Your task to perform on an android device: Clear all items from cart on costco.com. Search for jbl flip 4 on costco.com, select the first entry, add it to the cart, then select checkout. Image 0: 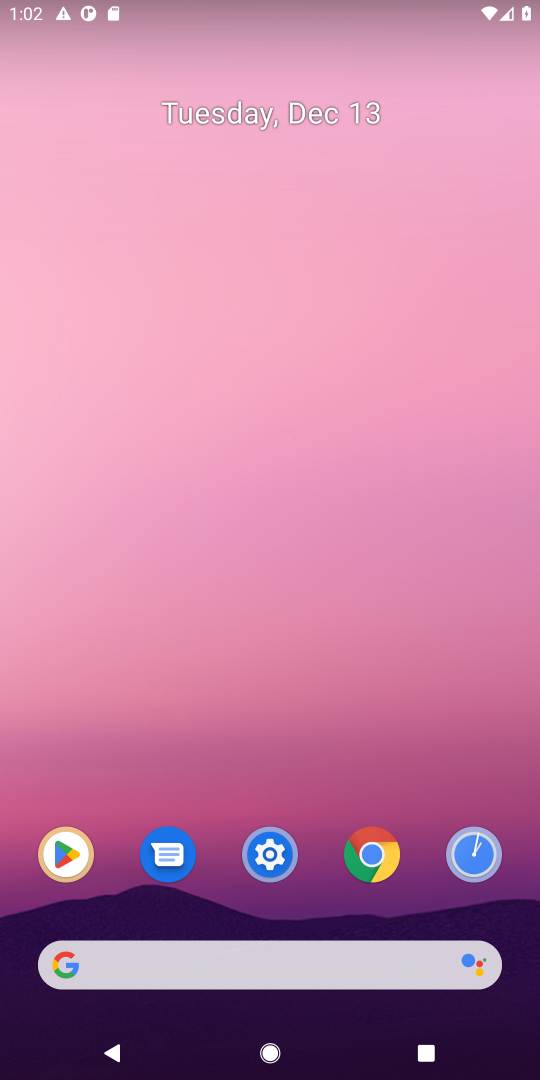
Step 0: click (339, 957)
Your task to perform on an android device: Clear all items from cart on costco.com. Search for jbl flip 4 on costco.com, select the first entry, add it to the cart, then select checkout. Image 1: 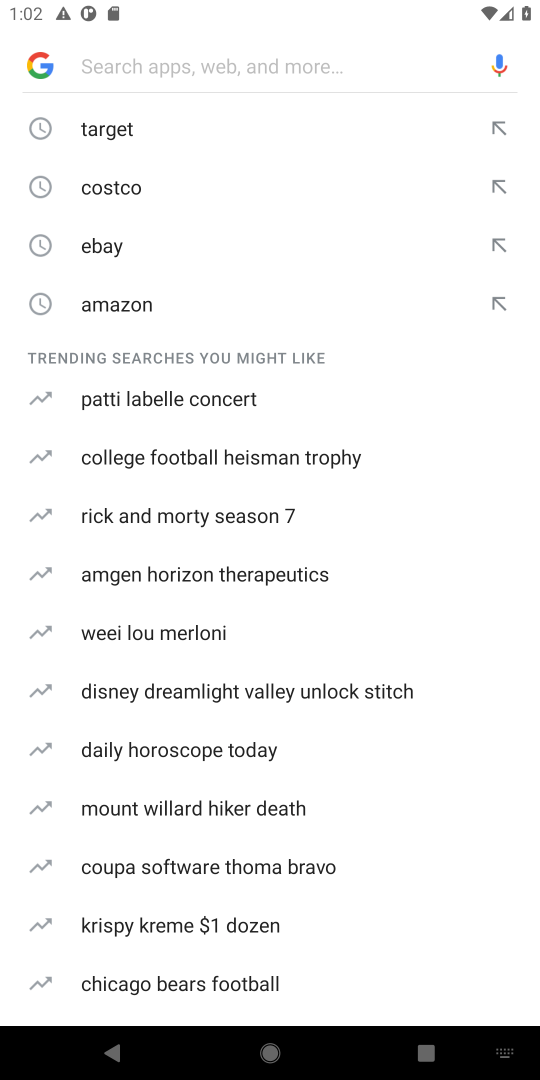
Step 1: click (190, 190)
Your task to perform on an android device: Clear all items from cart on costco.com. Search for jbl flip 4 on costco.com, select the first entry, add it to the cart, then select checkout. Image 2: 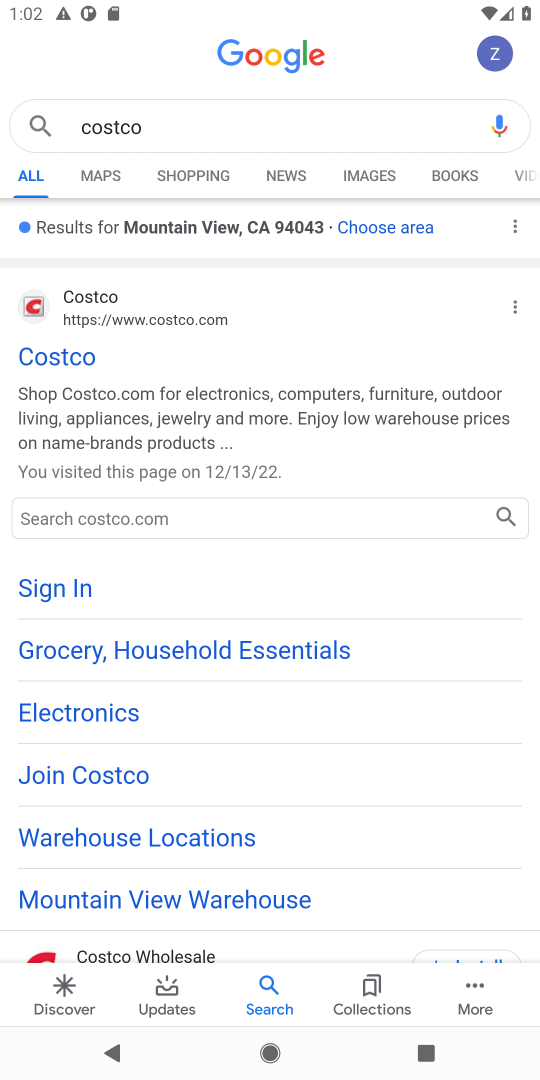
Step 2: click (37, 362)
Your task to perform on an android device: Clear all items from cart on costco.com. Search for jbl flip 4 on costco.com, select the first entry, add it to the cart, then select checkout. Image 3: 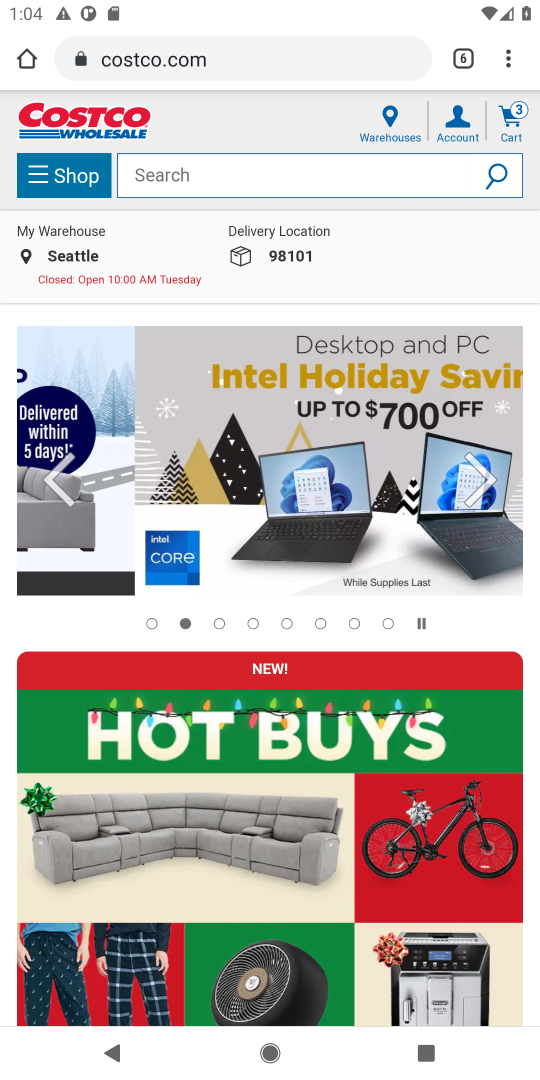
Step 3: click (301, 191)
Your task to perform on an android device: Clear all items from cart on costco.com. Search for jbl flip 4 on costco.com, select the first entry, add it to the cart, then select checkout. Image 4: 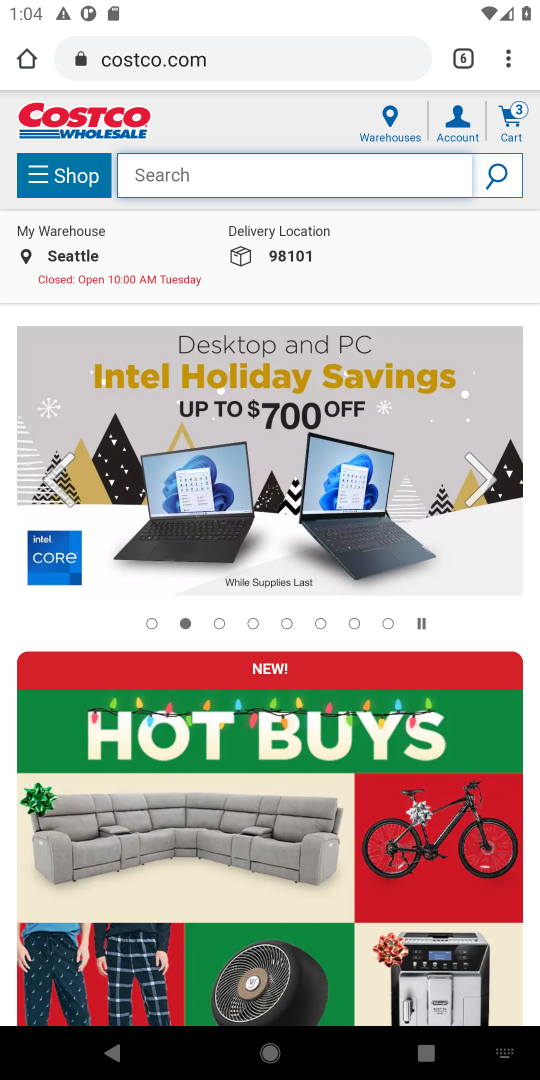
Step 4: click (301, 191)
Your task to perform on an android device: Clear all items from cart on costco.com. Search for jbl flip 4 on costco.com, select the first entry, add it to the cart, then select checkout. Image 5: 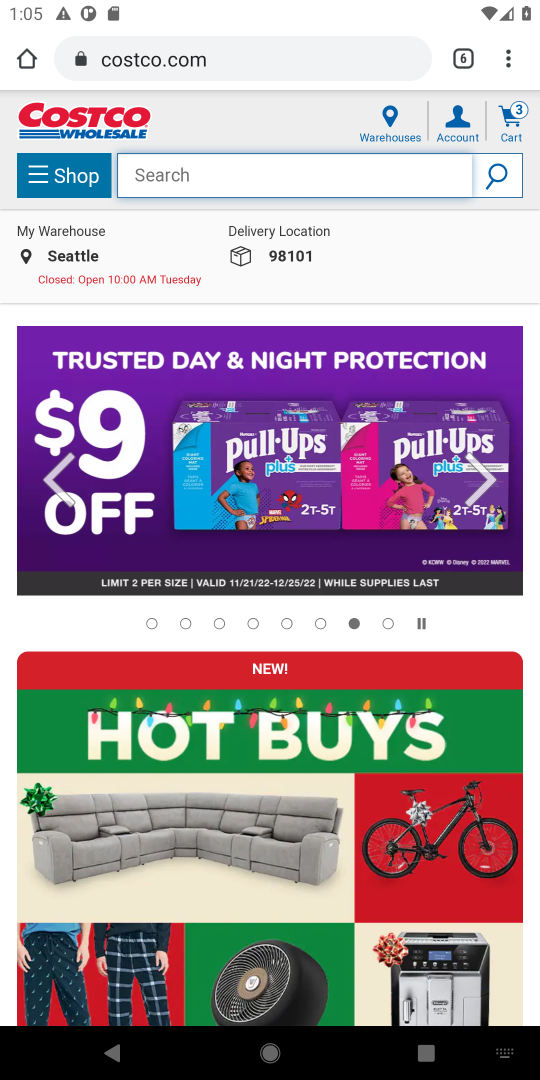
Step 5: type "jbl flip 4"
Your task to perform on an android device: Clear all items from cart on costco.com. Search for jbl flip 4 on costco.com, select the first entry, add it to the cart, then select checkout. Image 6: 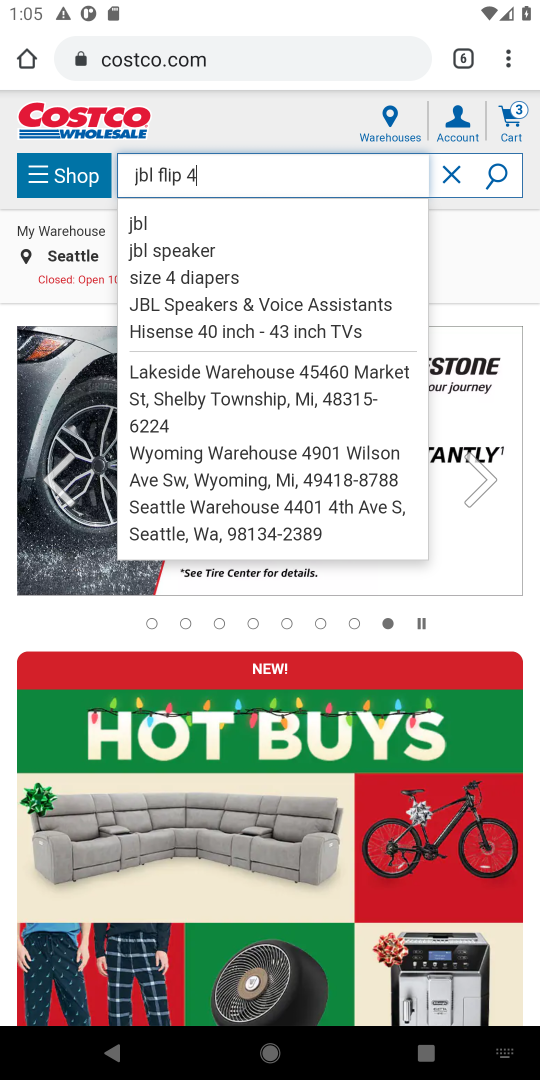
Step 6: click (503, 190)
Your task to perform on an android device: Clear all items from cart on costco.com. Search for jbl flip 4 on costco.com, select the first entry, add it to the cart, then select checkout. Image 7: 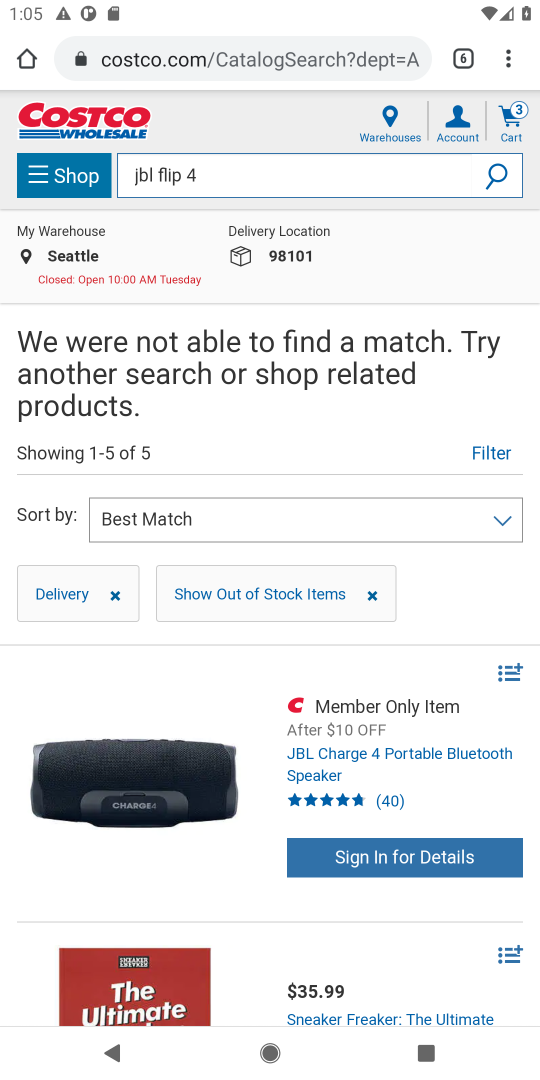
Step 7: click (373, 869)
Your task to perform on an android device: Clear all items from cart on costco.com. Search for jbl flip 4 on costco.com, select the first entry, add it to the cart, then select checkout. Image 8: 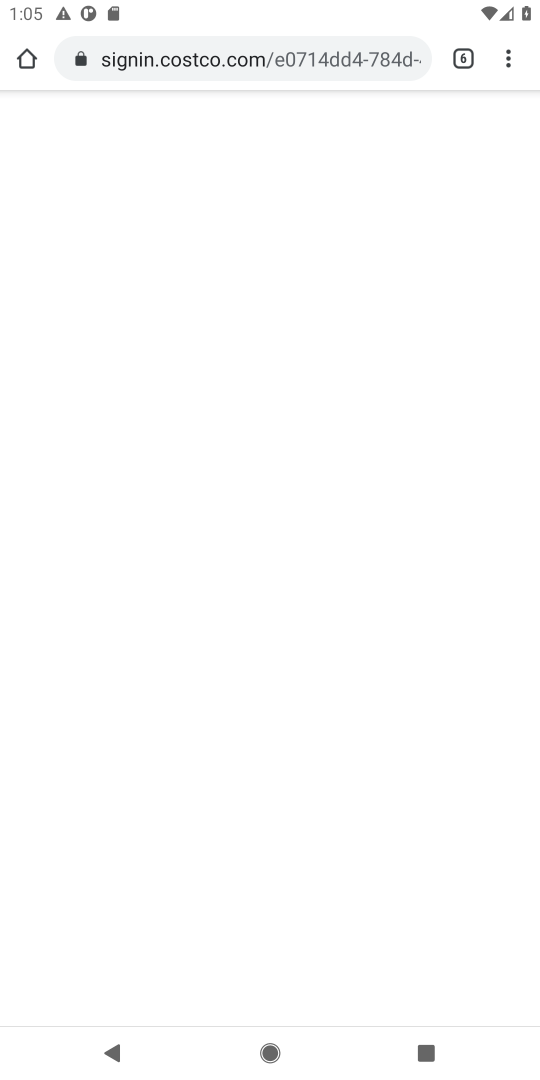
Step 8: task complete